Your task to perform on an android device: Search for vegetarian restaurants on Maps Image 0: 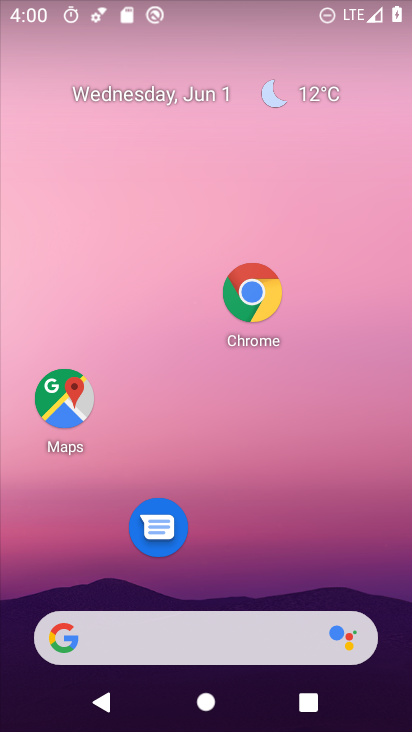
Step 0: drag from (270, 615) to (313, 1)
Your task to perform on an android device: Search for vegetarian restaurants on Maps Image 1: 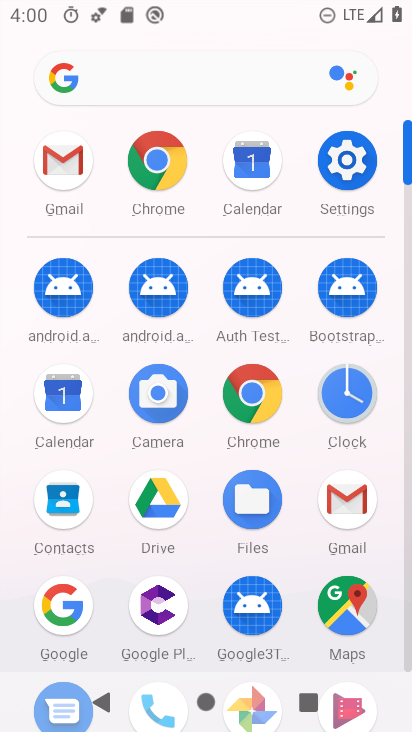
Step 1: click (348, 618)
Your task to perform on an android device: Search for vegetarian restaurants on Maps Image 2: 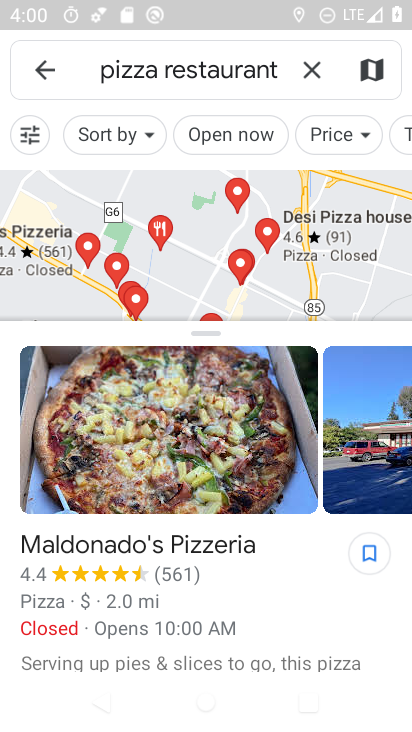
Step 2: click (306, 72)
Your task to perform on an android device: Search for vegetarian restaurants on Maps Image 3: 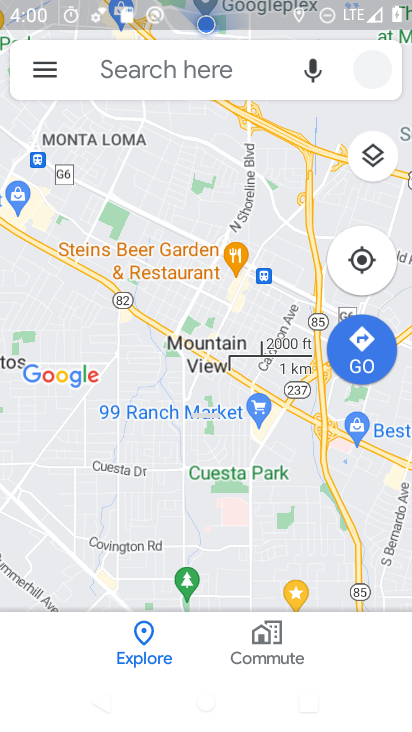
Step 3: click (202, 77)
Your task to perform on an android device: Search for vegetarian restaurants on Maps Image 4: 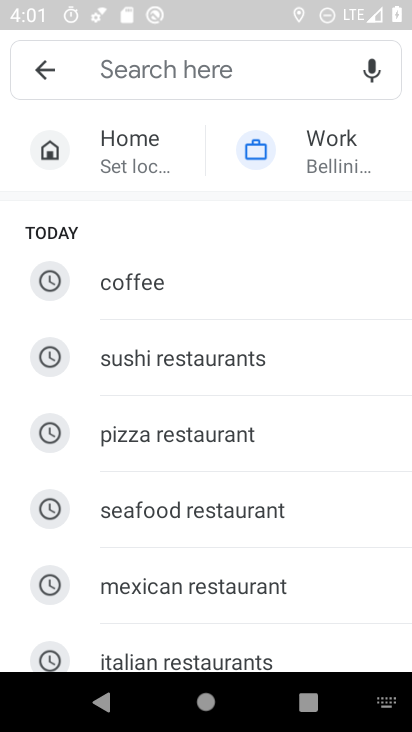
Step 4: drag from (169, 501) to (244, 590)
Your task to perform on an android device: Search for vegetarian restaurants on Maps Image 5: 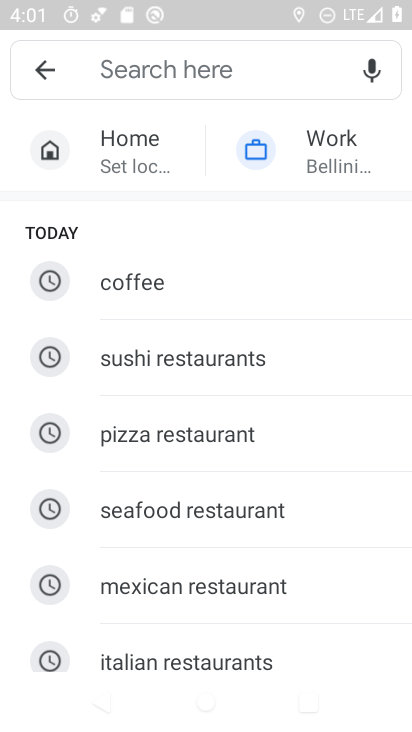
Step 5: click (267, 82)
Your task to perform on an android device: Search for vegetarian restaurants on Maps Image 6: 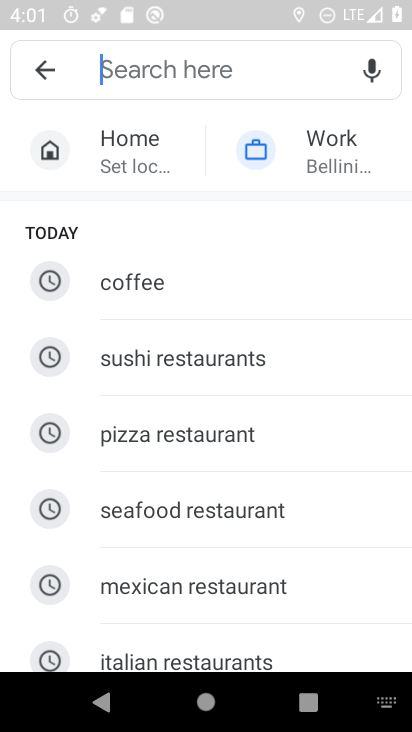
Step 6: type "vege"
Your task to perform on an android device: Search for vegetarian restaurants on Maps Image 7: 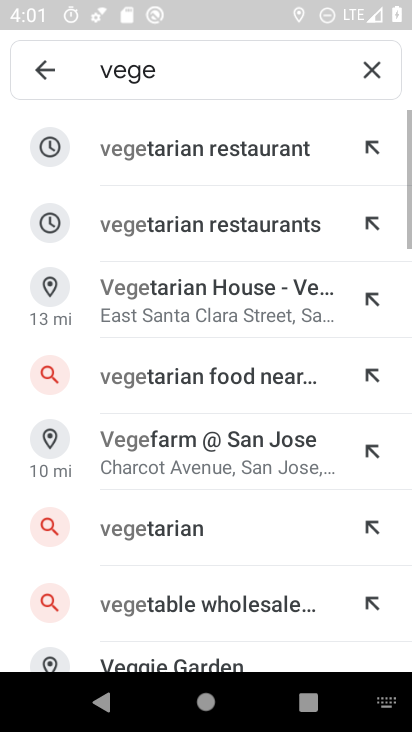
Step 7: click (260, 153)
Your task to perform on an android device: Search for vegetarian restaurants on Maps Image 8: 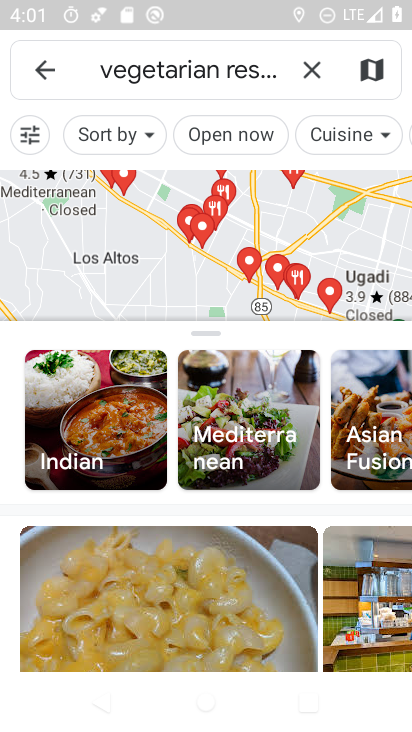
Step 8: task complete